Your task to perform on an android device: turn off notifications in google photos Image 0: 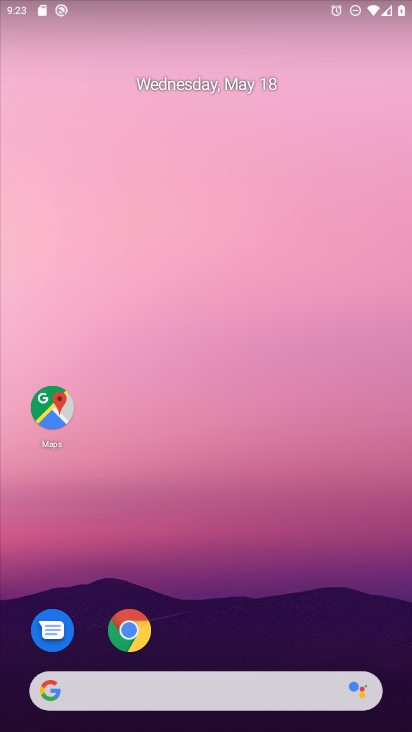
Step 0: click (126, 86)
Your task to perform on an android device: turn off notifications in google photos Image 1: 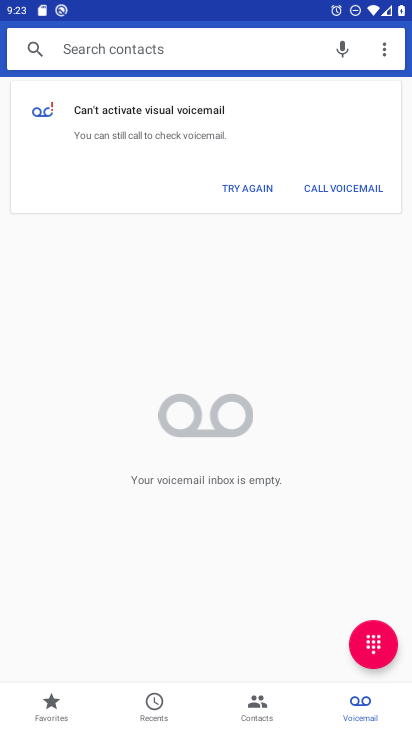
Step 1: press home button
Your task to perform on an android device: turn off notifications in google photos Image 2: 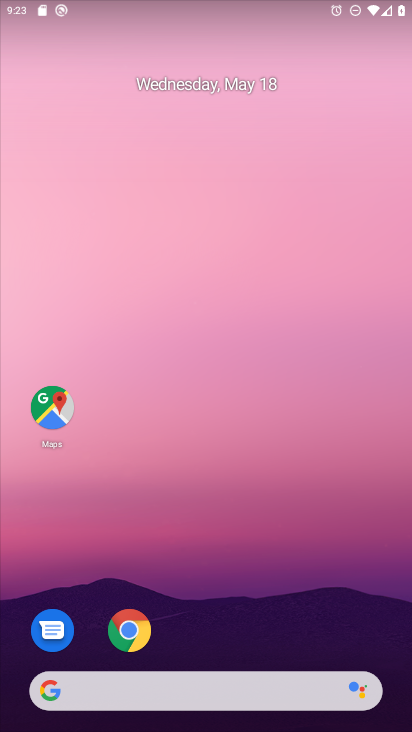
Step 2: drag from (221, 658) to (366, 52)
Your task to perform on an android device: turn off notifications in google photos Image 3: 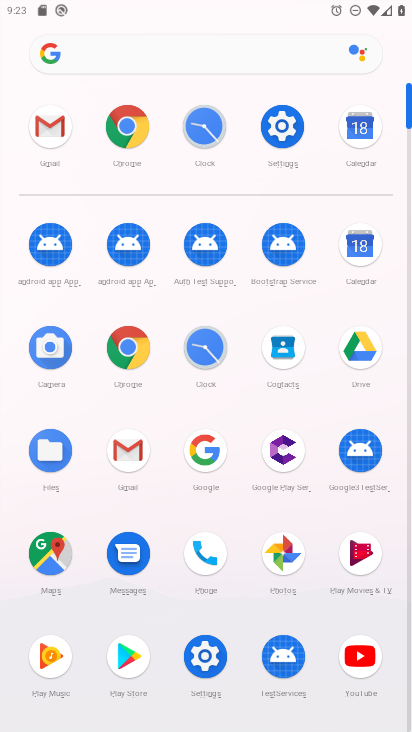
Step 3: click (271, 548)
Your task to perform on an android device: turn off notifications in google photos Image 4: 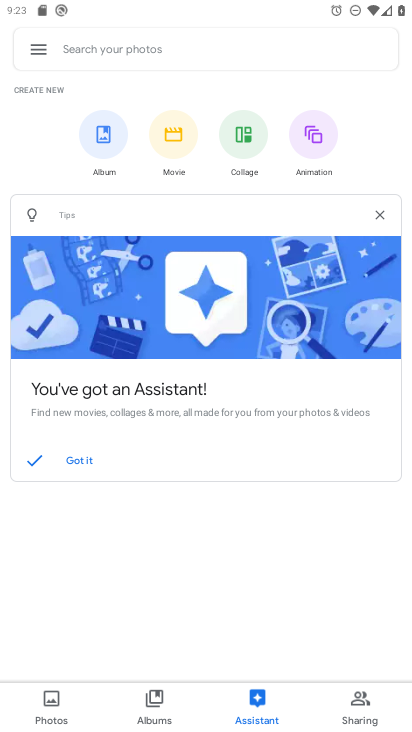
Step 4: click (33, 53)
Your task to perform on an android device: turn off notifications in google photos Image 5: 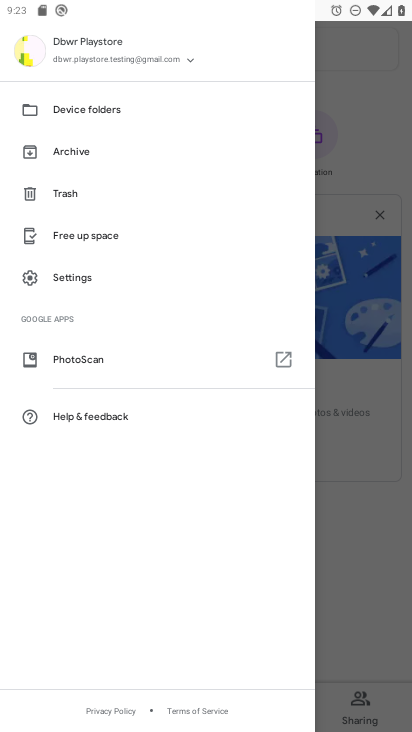
Step 5: click (87, 267)
Your task to perform on an android device: turn off notifications in google photos Image 6: 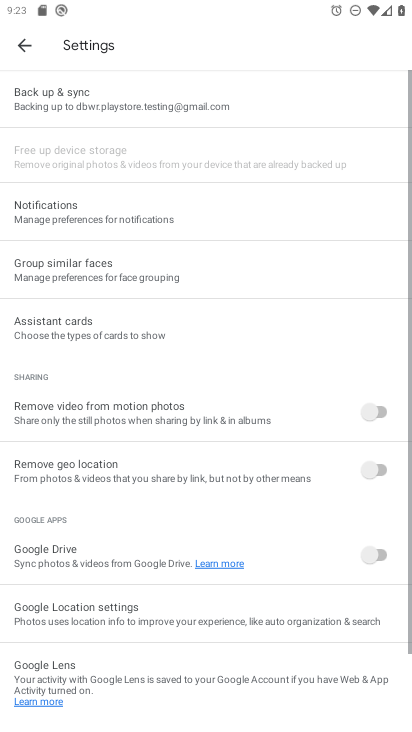
Step 6: click (107, 226)
Your task to perform on an android device: turn off notifications in google photos Image 7: 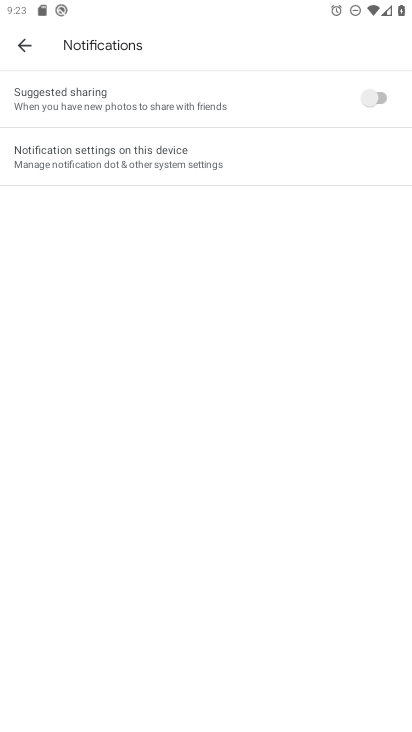
Step 7: click (278, 157)
Your task to perform on an android device: turn off notifications in google photos Image 8: 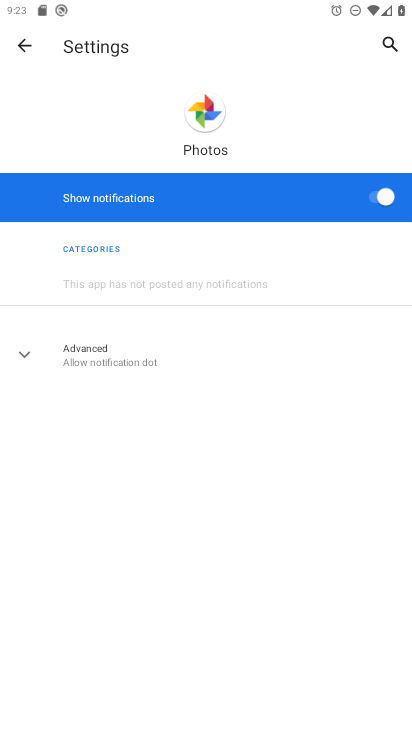
Step 8: click (380, 197)
Your task to perform on an android device: turn off notifications in google photos Image 9: 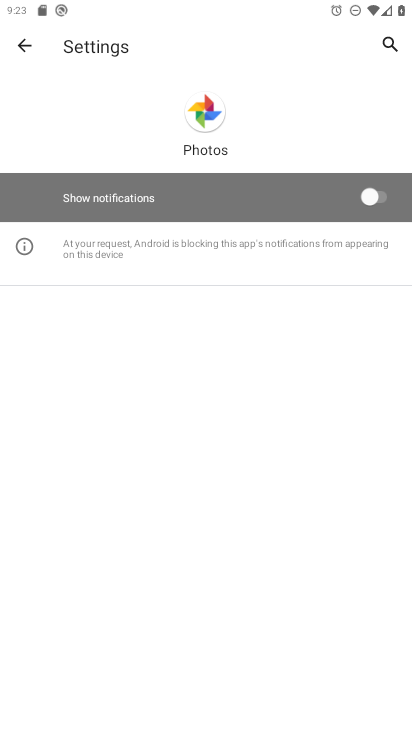
Step 9: task complete